Your task to perform on an android device: Set the phone to "Do not disturb". Image 0: 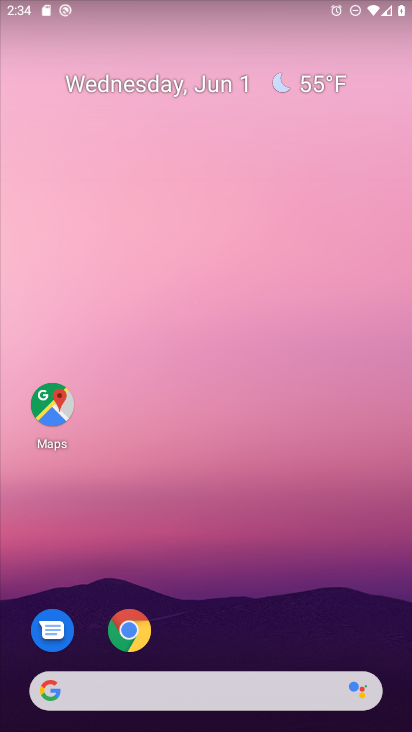
Step 0: drag from (226, 644) to (333, 27)
Your task to perform on an android device: Set the phone to "Do not disturb". Image 1: 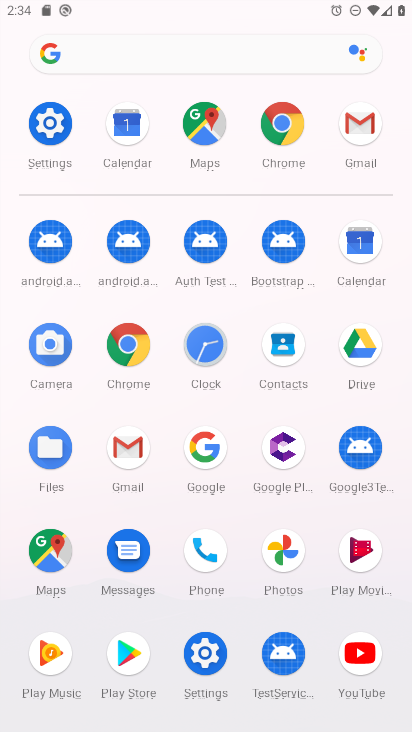
Step 1: click (37, 113)
Your task to perform on an android device: Set the phone to "Do not disturb". Image 2: 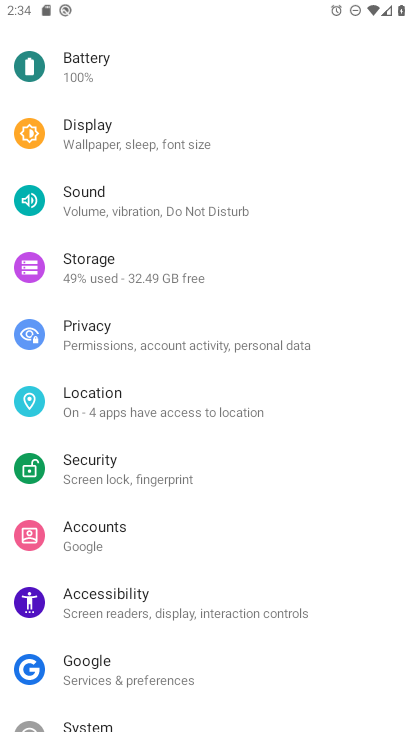
Step 2: click (116, 202)
Your task to perform on an android device: Set the phone to "Do not disturb". Image 3: 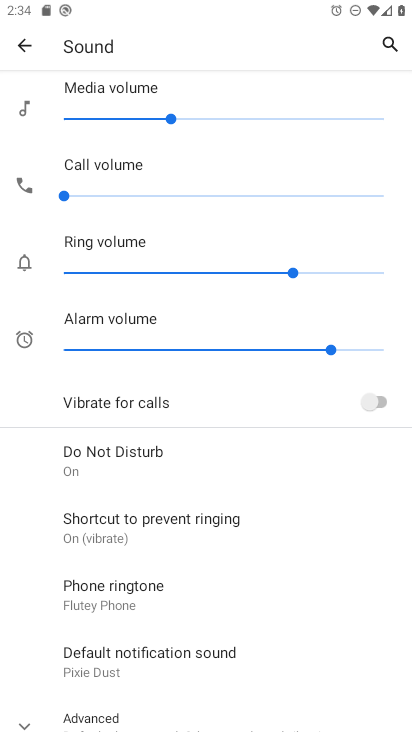
Step 3: click (190, 463)
Your task to perform on an android device: Set the phone to "Do not disturb". Image 4: 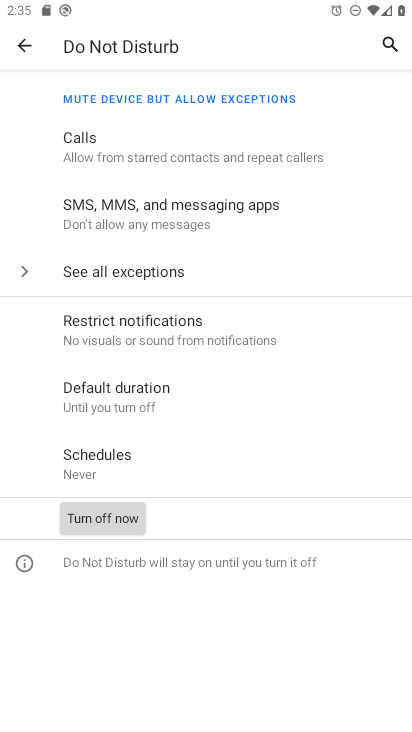
Step 4: task complete